Your task to perform on an android device: clear all cookies in the chrome app Image 0: 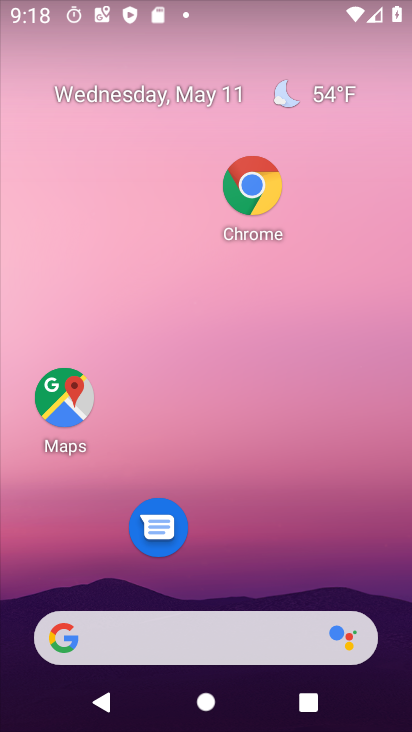
Step 0: click (254, 182)
Your task to perform on an android device: clear all cookies in the chrome app Image 1: 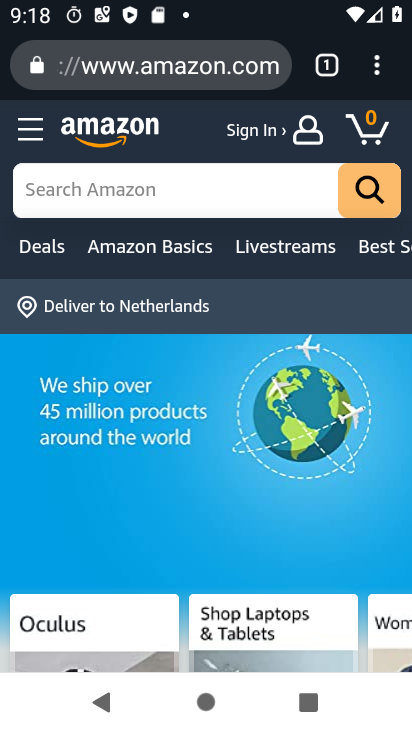
Step 1: click (369, 70)
Your task to perform on an android device: clear all cookies in the chrome app Image 2: 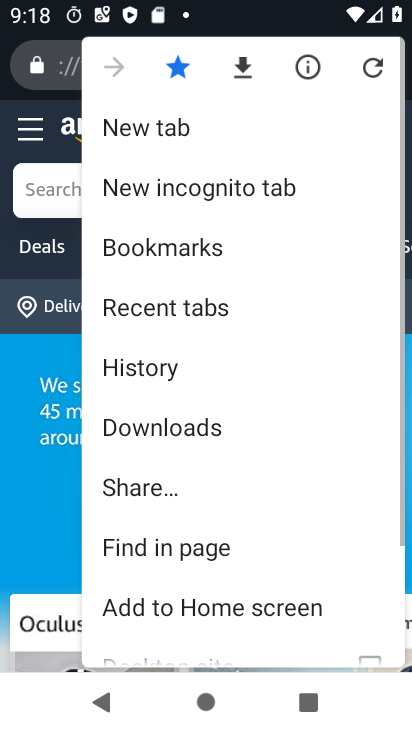
Step 2: drag from (240, 550) to (229, 73)
Your task to perform on an android device: clear all cookies in the chrome app Image 3: 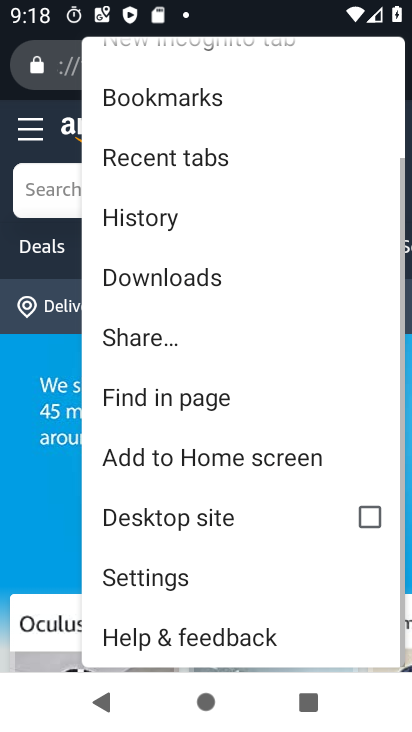
Step 3: click (195, 575)
Your task to perform on an android device: clear all cookies in the chrome app Image 4: 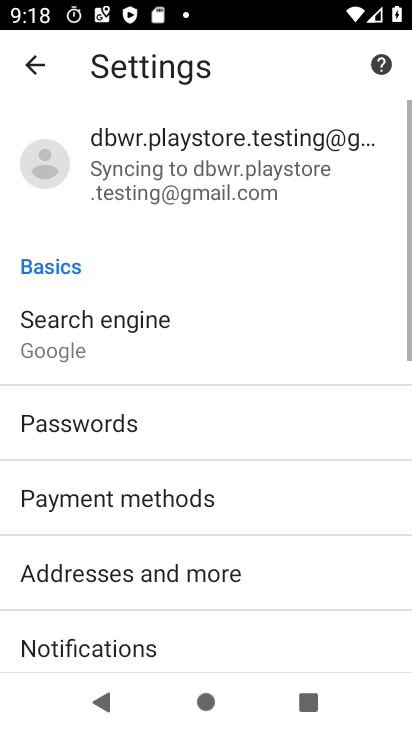
Step 4: drag from (184, 550) to (176, 169)
Your task to perform on an android device: clear all cookies in the chrome app Image 5: 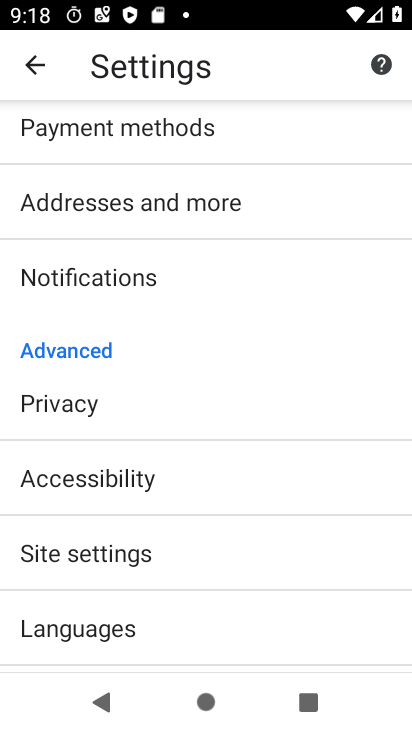
Step 5: click (104, 398)
Your task to perform on an android device: clear all cookies in the chrome app Image 6: 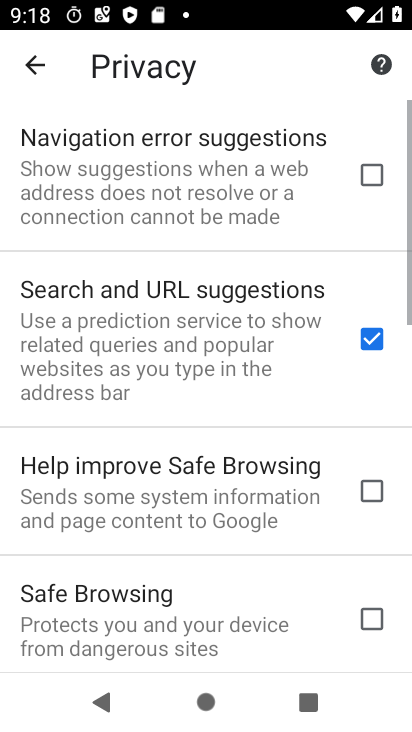
Step 6: drag from (195, 547) to (179, 14)
Your task to perform on an android device: clear all cookies in the chrome app Image 7: 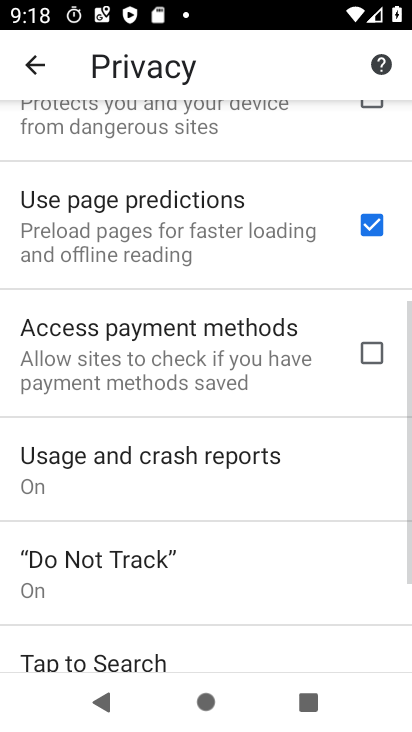
Step 7: drag from (136, 588) to (153, 28)
Your task to perform on an android device: clear all cookies in the chrome app Image 8: 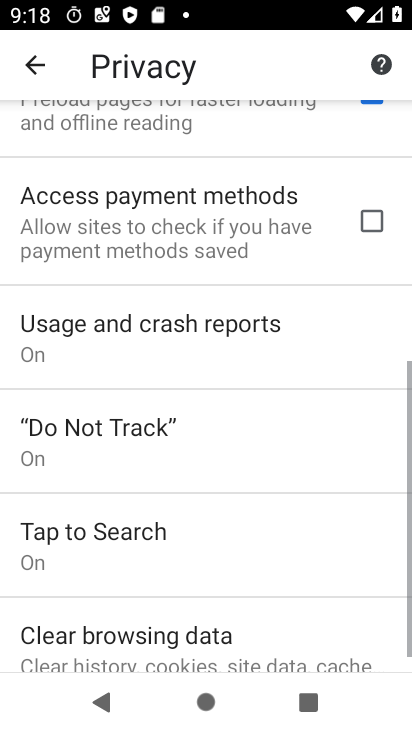
Step 8: click (163, 623)
Your task to perform on an android device: clear all cookies in the chrome app Image 9: 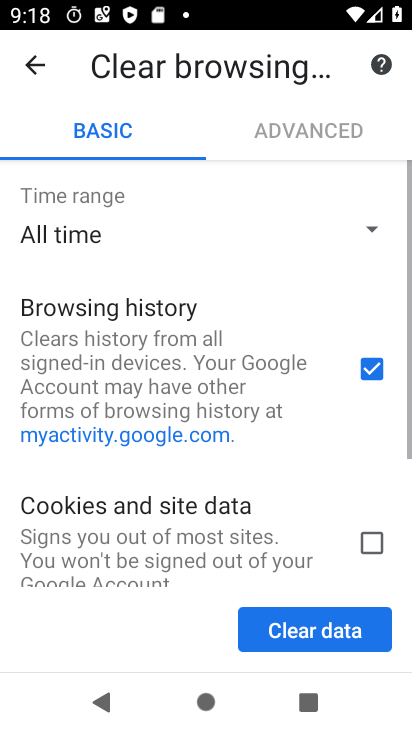
Step 9: drag from (319, 446) to (302, 288)
Your task to perform on an android device: clear all cookies in the chrome app Image 10: 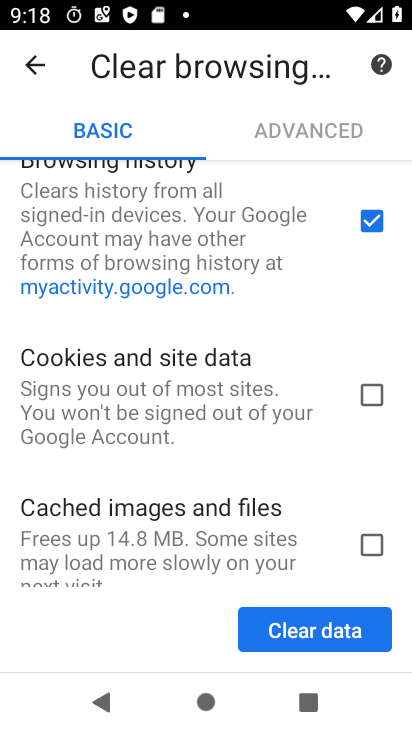
Step 10: click (372, 215)
Your task to perform on an android device: clear all cookies in the chrome app Image 11: 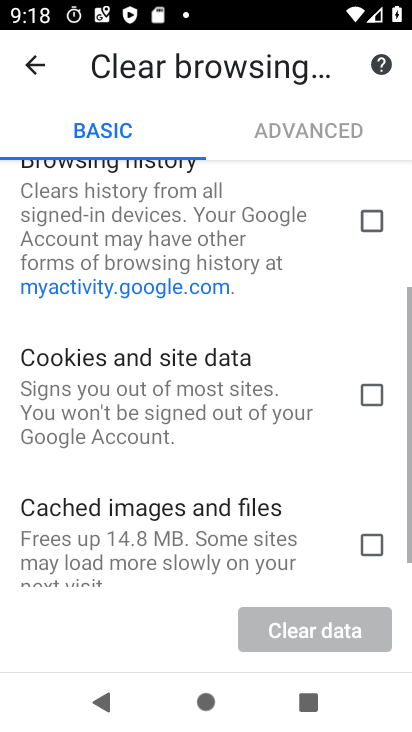
Step 11: click (369, 390)
Your task to perform on an android device: clear all cookies in the chrome app Image 12: 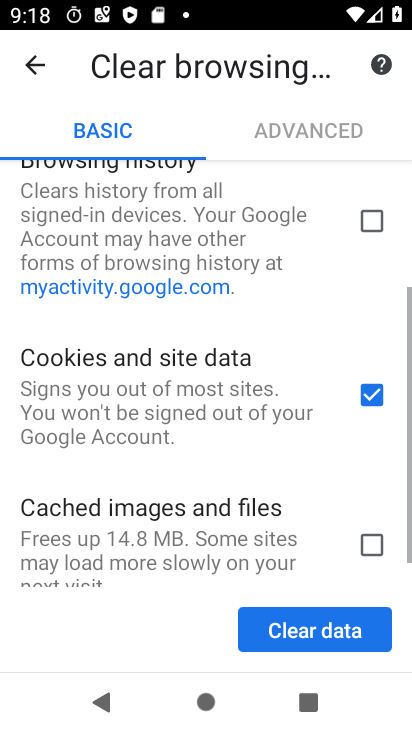
Step 12: click (320, 629)
Your task to perform on an android device: clear all cookies in the chrome app Image 13: 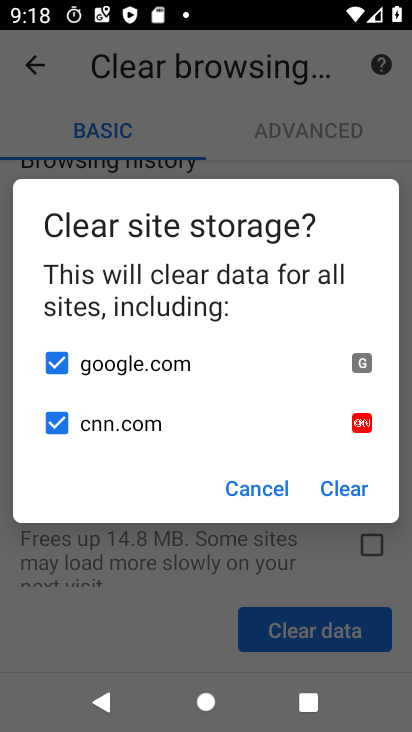
Step 13: click (347, 505)
Your task to perform on an android device: clear all cookies in the chrome app Image 14: 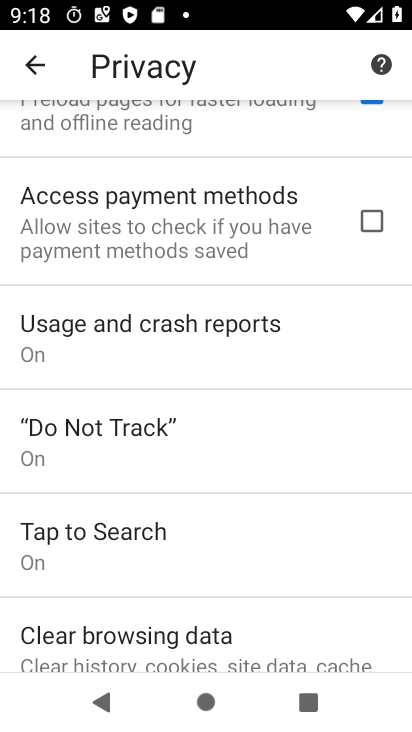
Step 14: task complete